Your task to perform on an android device: Go to accessibility settings Image 0: 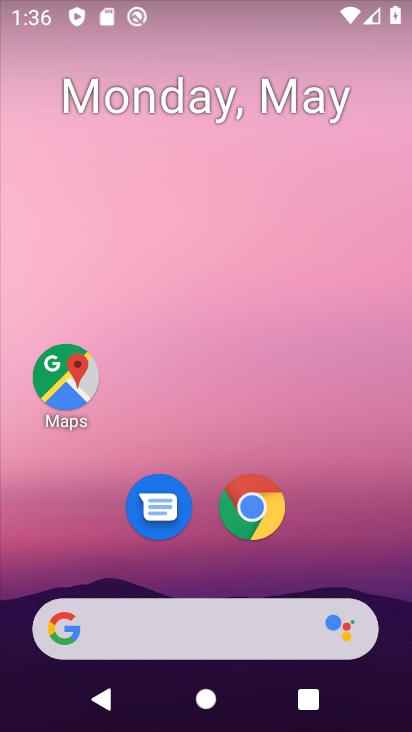
Step 0: press home button
Your task to perform on an android device: Go to accessibility settings Image 1: 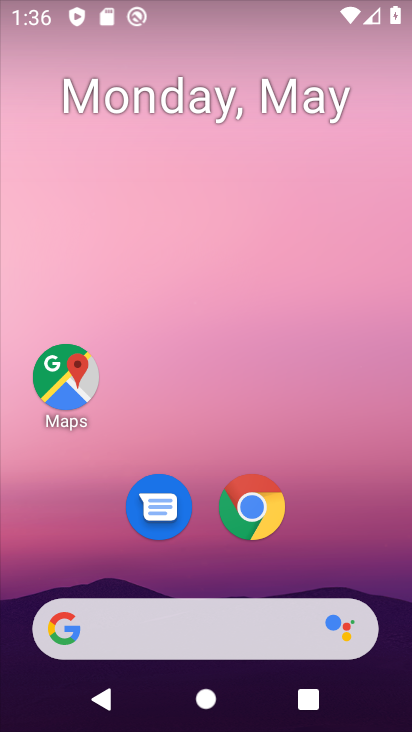
Step 1: drag from (360, 486) to (360, 158)
Your task to perform on an android device: Go to accessibility settings Image 2: 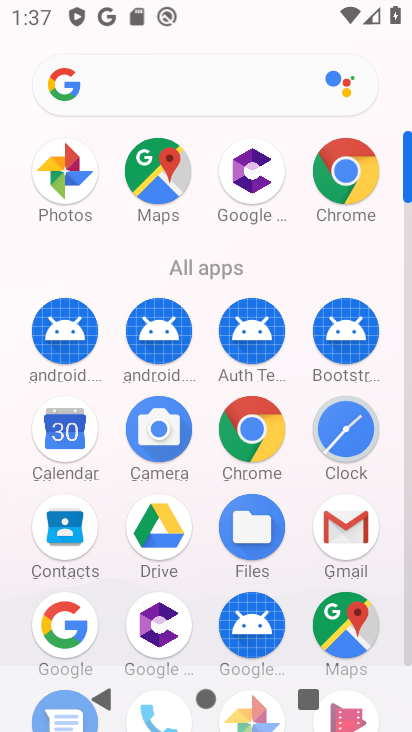
Step 2: drag from (166, 601) to (191, 300)
Your task to perform on an android device: Go to accessibility settings Image 3: 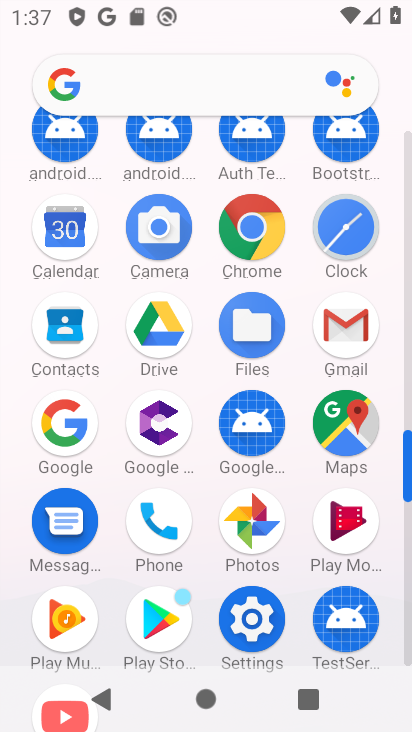
Step 3: click (245, 631)
Your task to perform on an android device: Go to accessibility settings Image 4: 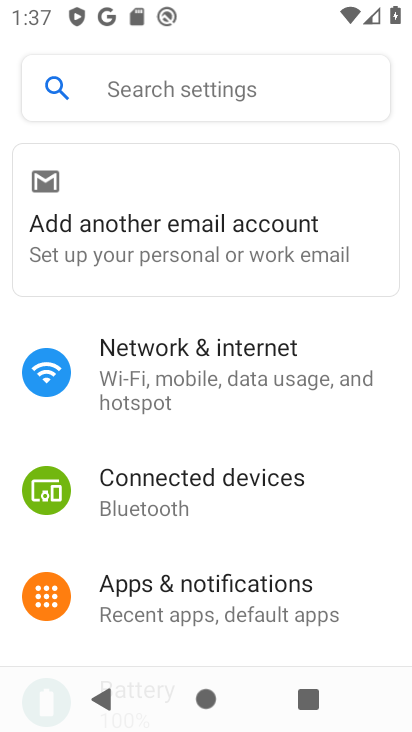
Step 4: drag from (243, 536) to (255, 295)
Your task to perform on an android device: Go to accessibility settings Image 5: 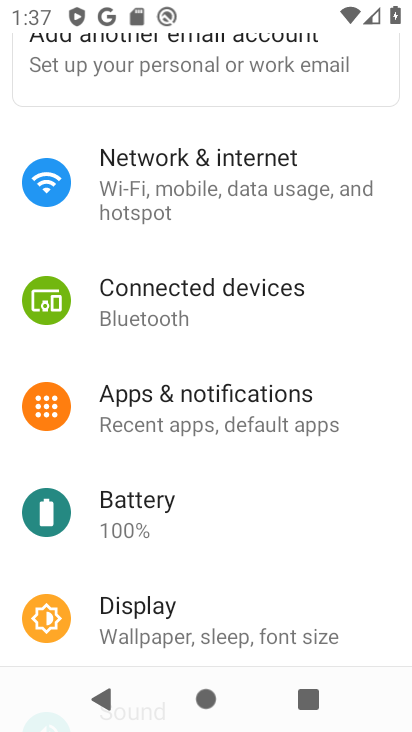
Step 5: drag from (233, 545) to (256, 244)
Your task to perform on an android device: Go to accessibility settings Image 6: 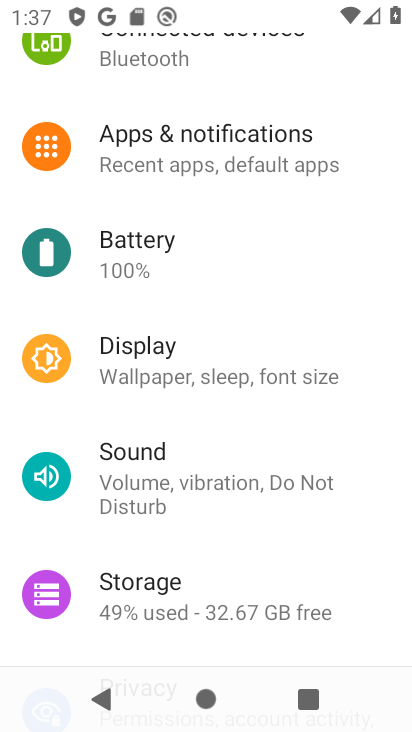
Step 6: drag from (253, 594) to (268, 253)
Your task to perform on an android device: Go to accessibility settings Image 7: 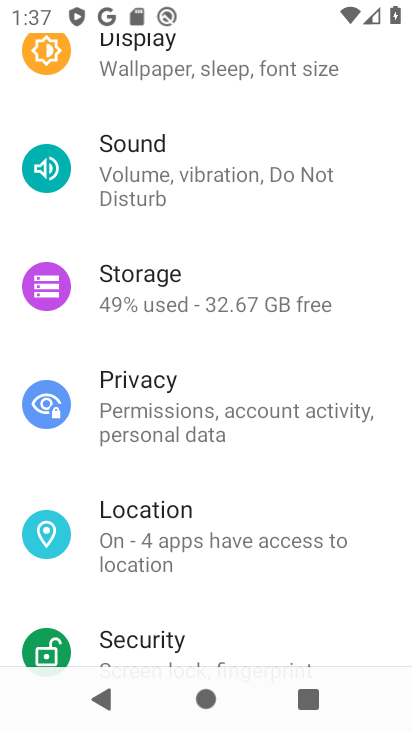
Step 7: drag from (242, 540) to (245, 246)
Your task to perform on an android device: Go to accessibility settings Image 8: 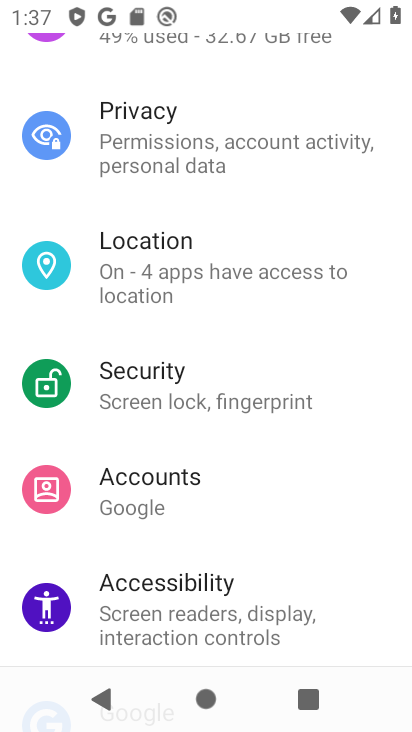
Step 8: click (212, 585)
Your task to perform on an android device: Go to accessibility settings Image 9: 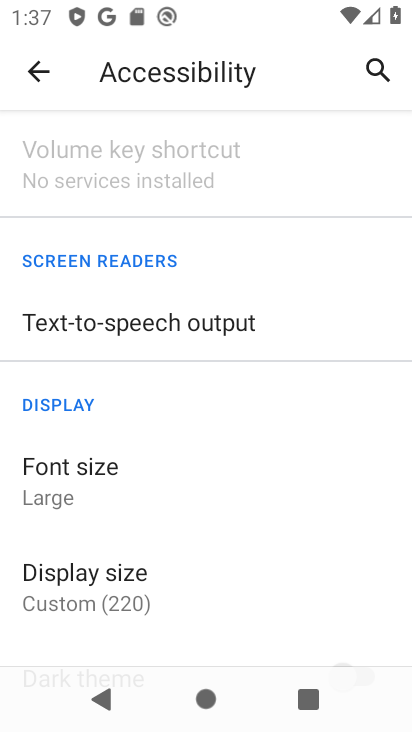
Step 9: task complete